Your task to perform on an android device: allow notifications from all sites in the chrome app Image 0: 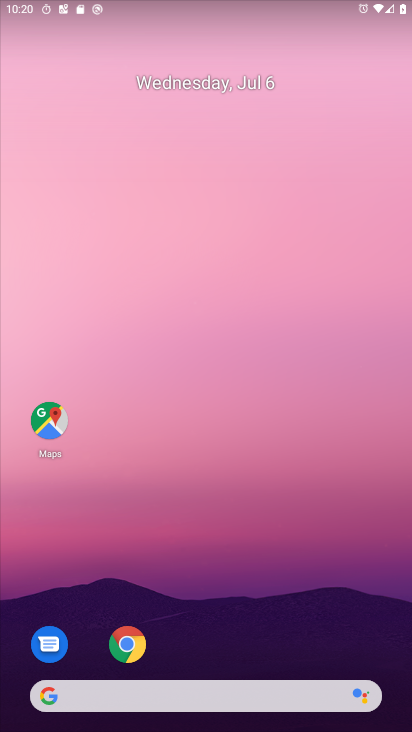
Step 0: drag from (234, 600) to (242, 330)
Your task to perform on an android device: allow notifications from all sites in the chrome app Image 1: 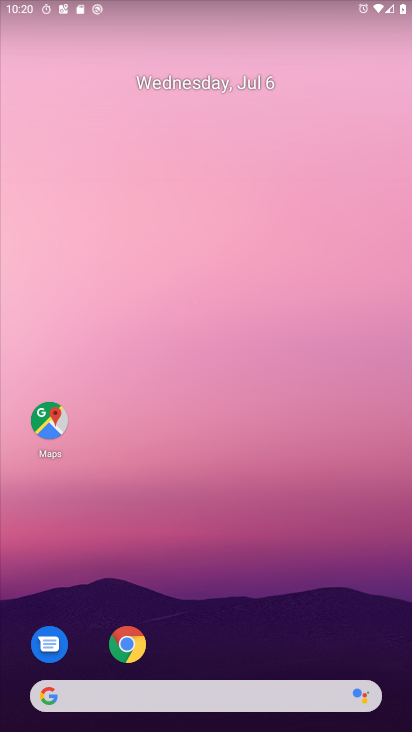
Step 1: drag from (204, 647) to (249, 83)
Your task to perform on an android device: allow notifications from all sites in the chrome app Image 2: 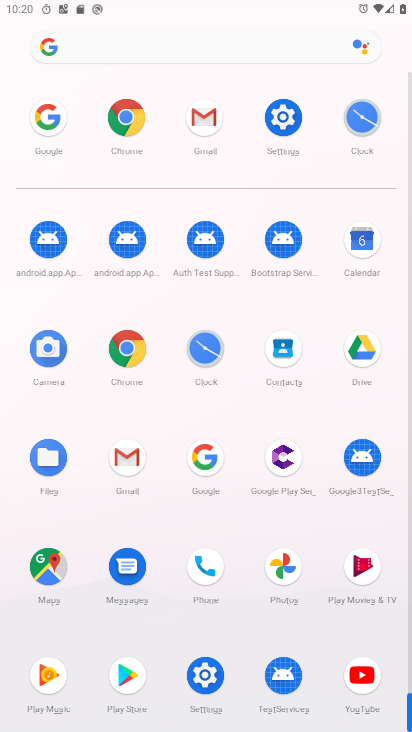
Step 2: click (136, 366)
Your task to perform on an android device: allow notifications from all sites in the chrome app Image 3: 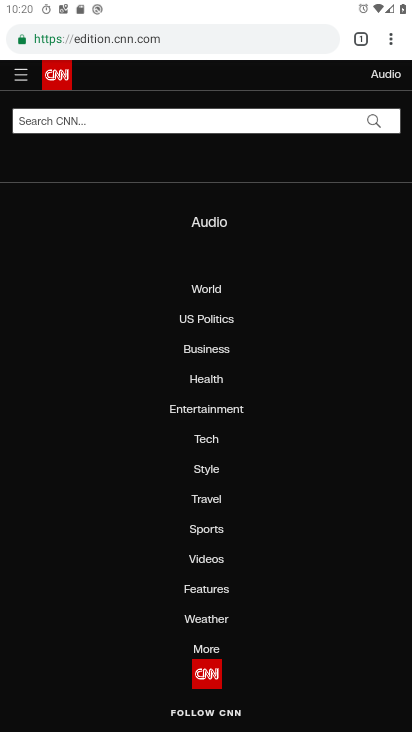
Step 3: click (392, 35)
Your task to perform on an android device: allow notifications from all sites in the chrome app Image 4: 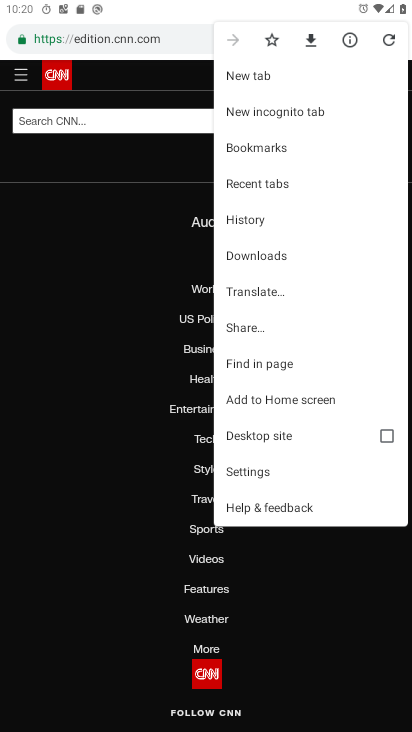
Step 4: click (254, 470)
Your task to perform on an android device: allow notifications from all sites in the chrome app Image 5: 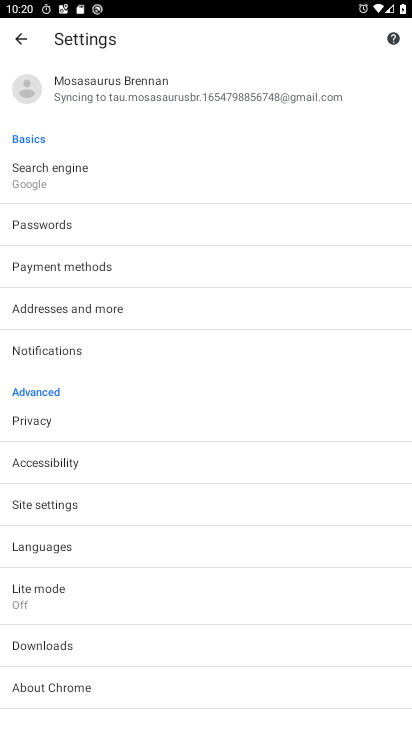
Step 5: click (71, 352)
Your task to perform on an android device: allow notifications from all sites in the chrome app Image 6: 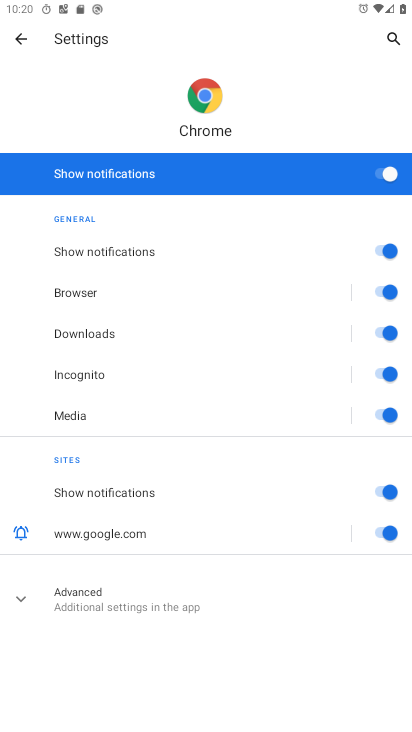
Step 6: click (155, 609)
Your task to perform on an android device: allow notifications from all sites in the chrome app Image 7: 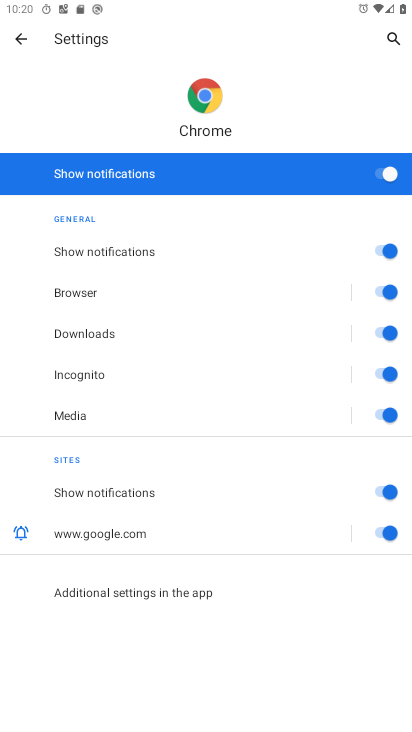
Step 7: task complete